Your task to perform on an android device: set the stopwatch Image 0: 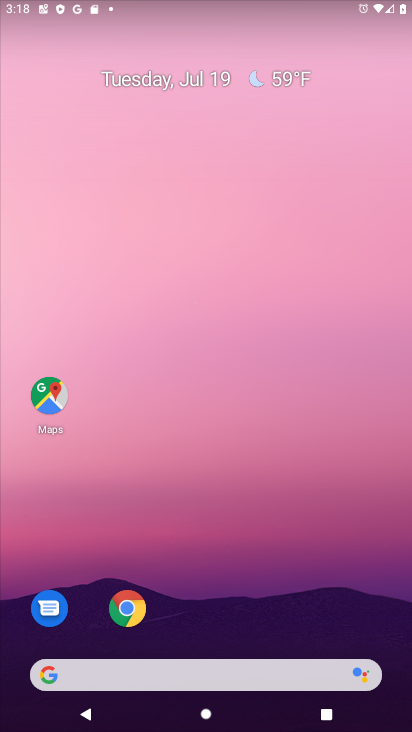
Step 0: drag from (342, 631) to (288, 144)
Your task to perform on an android device: set the stopwatch Image 1: 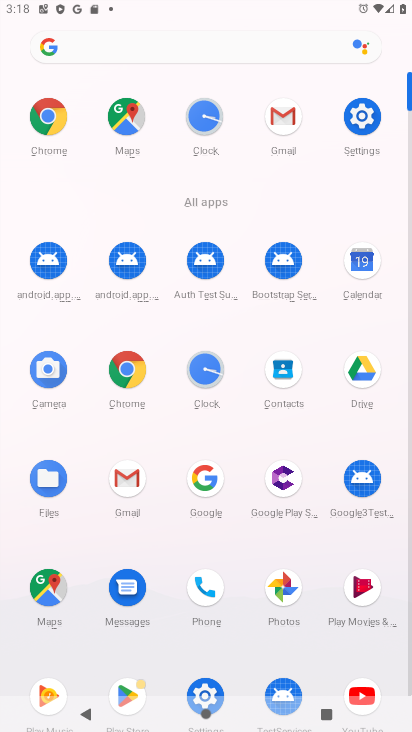
Step 1: click (201, 117)
Your task to perform on an android device: set the stopwatch Image 2: 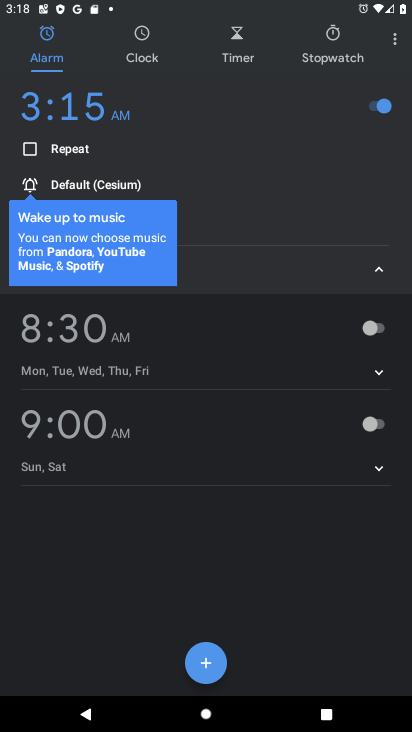
Step 2: click (315, 54)
Your task to perform on an android device: set the stopwatch Image 3: 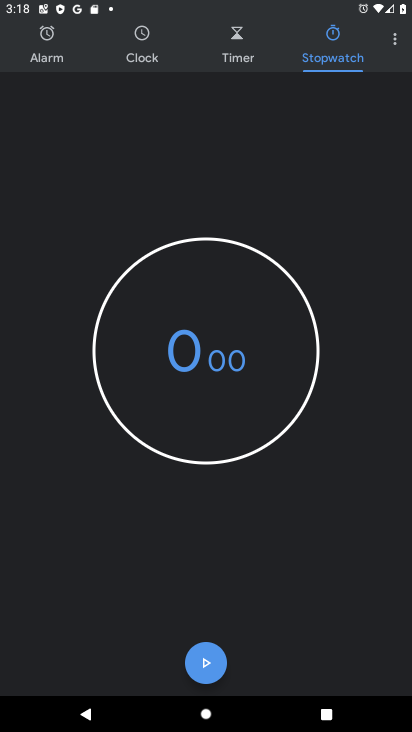
Step 3: click (211, 666)
Your task to perform on an android device: set the stopwatch Image 4: 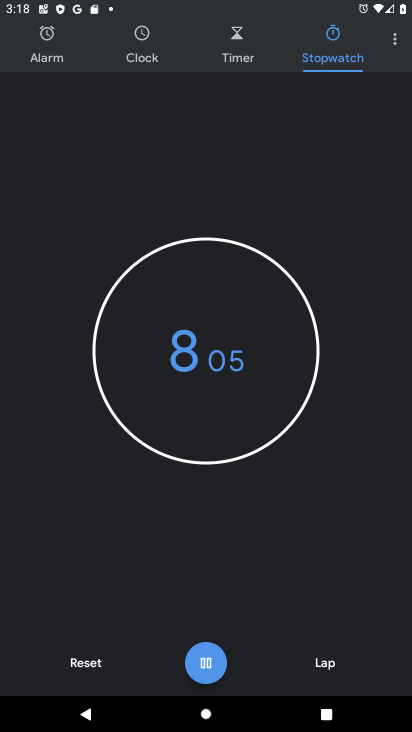
Step 4: task complete